Your task to perform on an android device: change alarm snooze length Image 0: 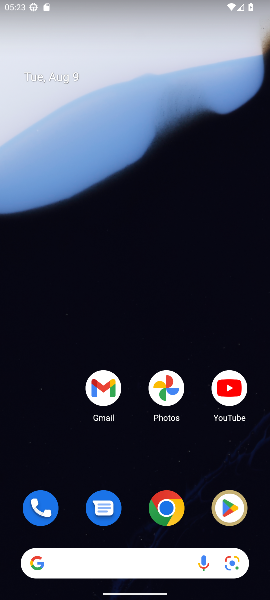
Step 0: drag from (112, 457) to (205, 13)
Your task to perform on an android device: change alarm snooze length Image 1: 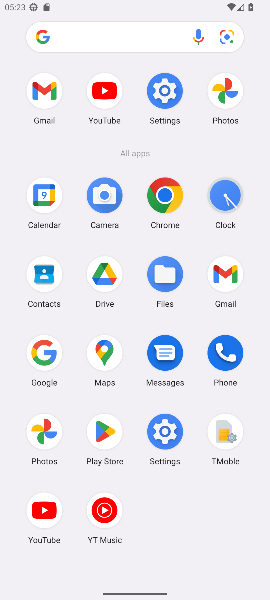
Step 1: click (223, 194)
Your task to perform on an android device: change alarm snooze length Image 2: 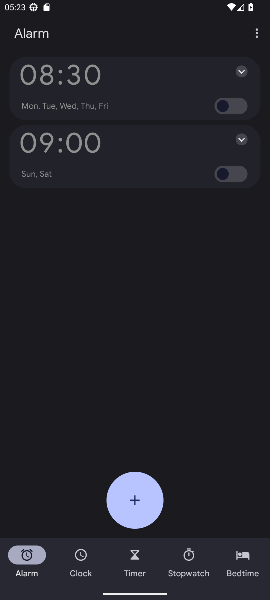
Step 2: click (250, 35)
Your task to perform on an android device: change alarm snooze length Image 3: 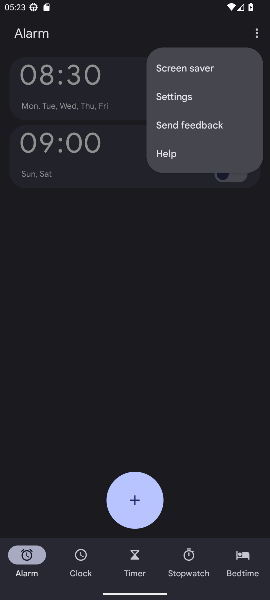
Step 3: click (193, 98)
Your task to perform on an android device: change alarm snooze length Image 4: 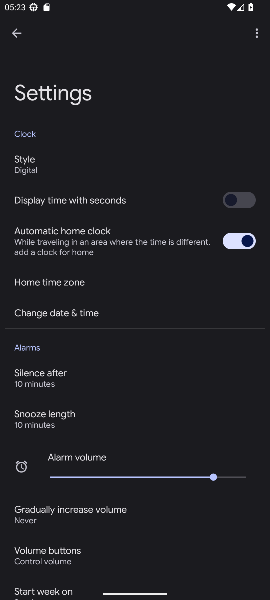
Step 4: click (68, 406)
Your task to perform on an android device: change alarm snooze length Image 5: 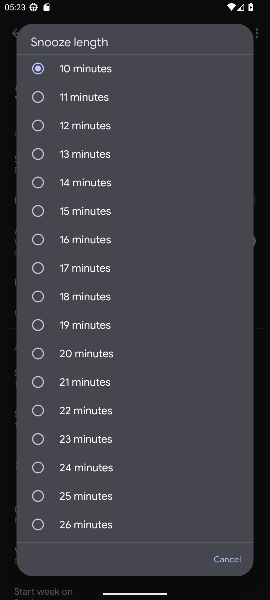
Step 5: click (93, 208)
Your task to perform on an android device: change alarm snooze length Image 6: 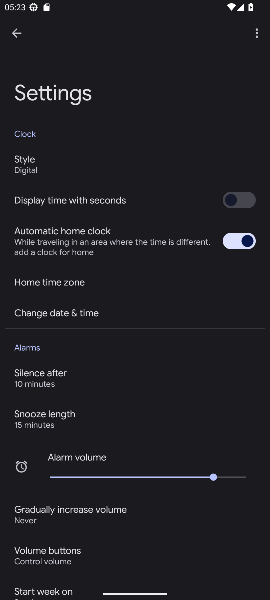
Step 6: task complete